Your task to perform on an android device: delete browsing data in the chrome app Image 0: 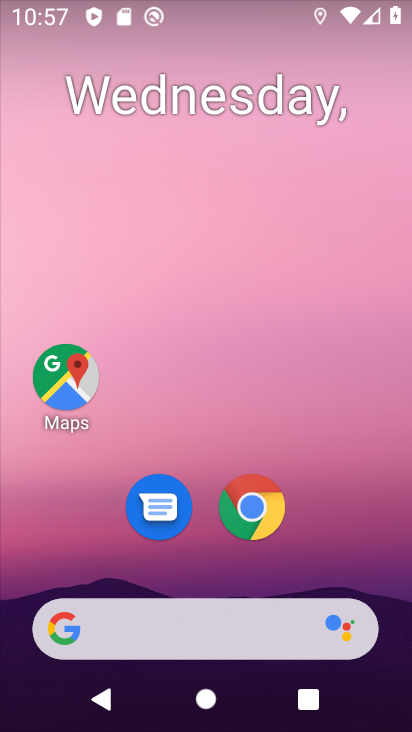
Step 0: drag from (344, 536) to (359, 159)
Your task to perform on an android device: delete browsing data in the chrome app Image 1: 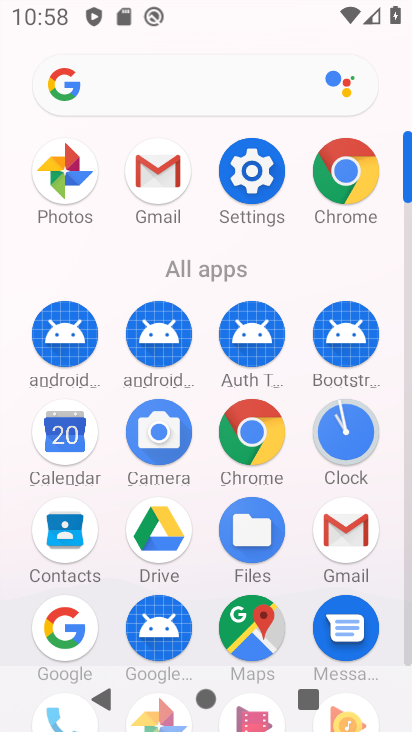
Step 1: click (249, 422)
Your task to perform on an android device: delete browsing data in the chrome app Image 2: 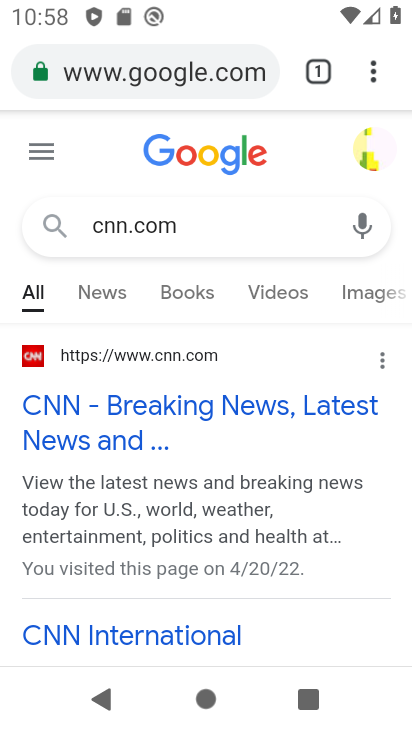
Step 2: click (377, 72)
Your task to perform on an android device: delete browsing data in the chrome app Image 3: 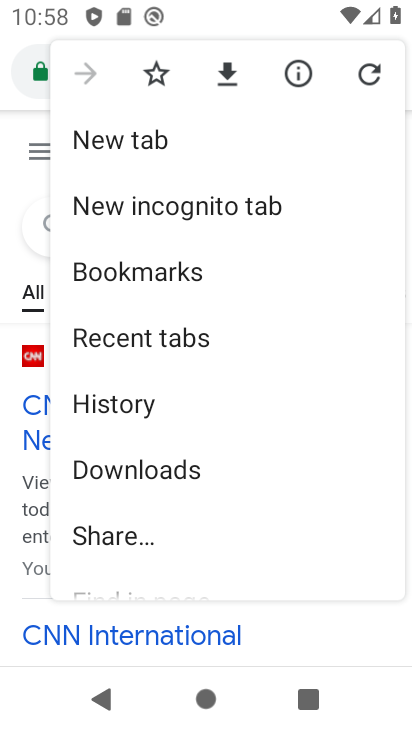
Step 3: drag from (356, 457) to (381, 297)
Your task to perform on an android device: delete browsing data in the chrome app Image 4: 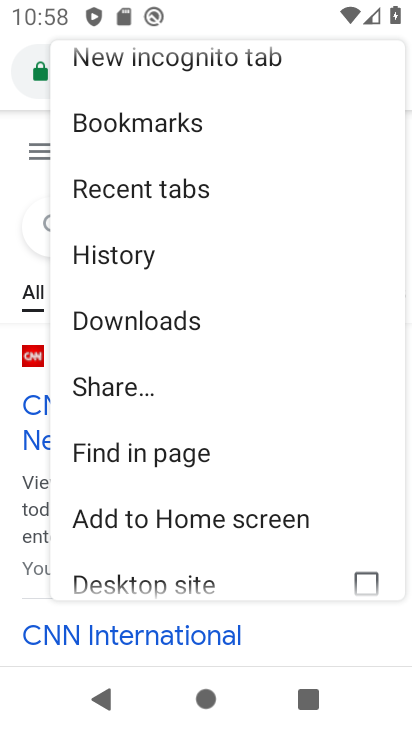
Step 4: drag from (302, 444) to (305, 304)
Your task to perform on an android device: delete browsing data in the chrome app Image 5: 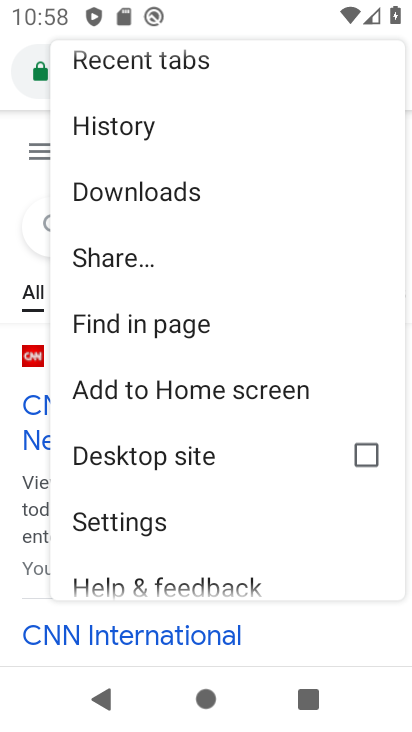
Step 5: click (159, 524)
Your task to perform on an android device: delete browsing data in the chrome app Image 6: 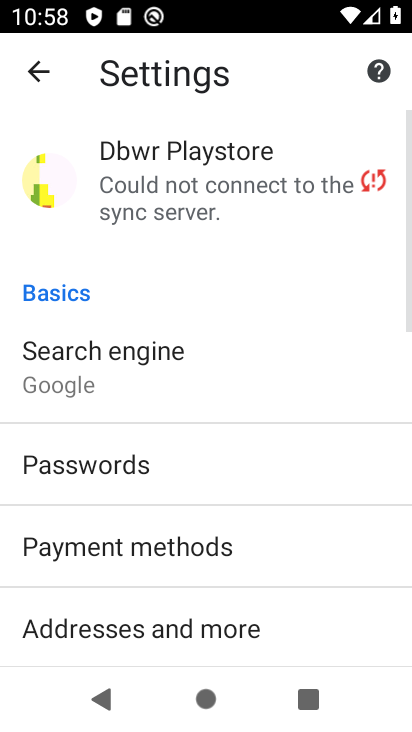
Step 6: drag from (287, 558) to (295, 416)
Your task to perform on an android device: delete browsing data in the chrome app Image 7: 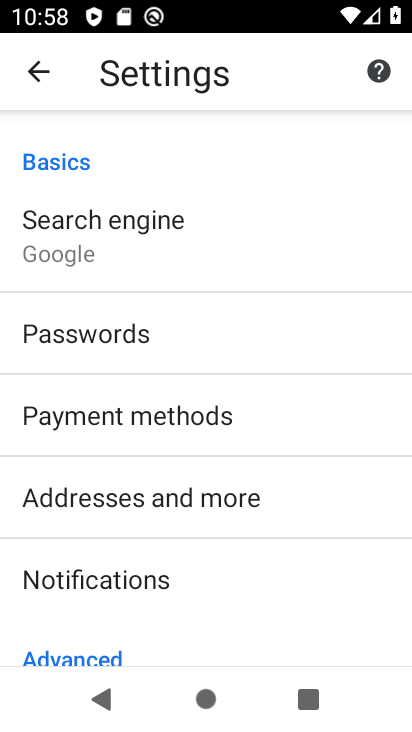
Step 7: drag from (339, 530) to (369, 345)
Your task to perform on an android device: delete browsing data in the chrome app Image 8: 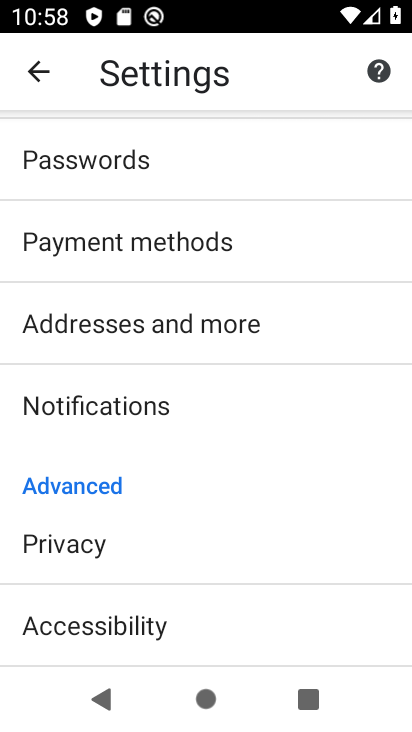
Step 8: drag from (294, 489) to (292, 326)
Your task to perform on an android device: delete browsing data in the chrome app Image 9: 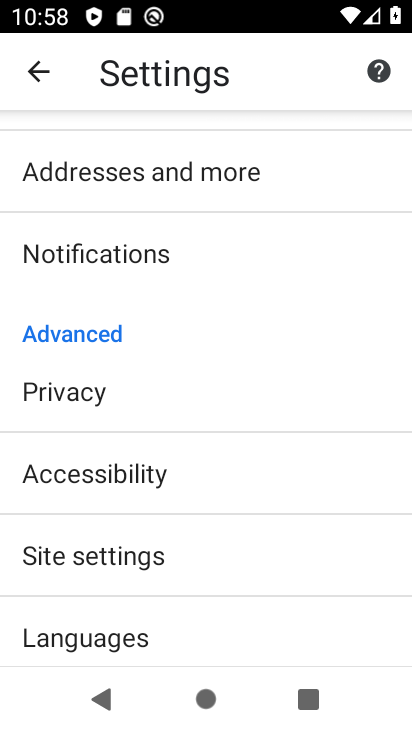
Step 9: drag from (311, 582) to (334, 416)
Your task to perform on an android device: delete browsing data in the chrome app Image 10: 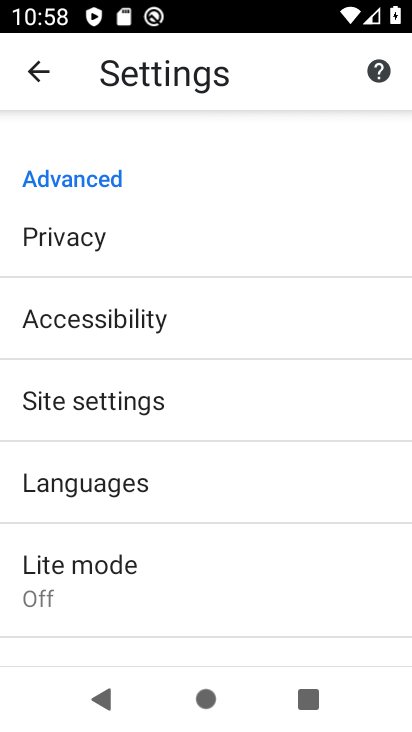
Step 10: click (112, 232)
Your task to perform on an android device: delete browsing data in the chrome app Image 11: 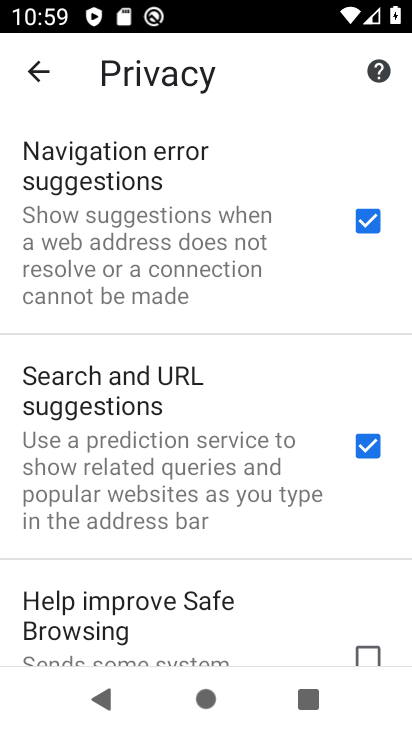
Step 11: drag from (265, 546) to (272, 327)
Your task to perform on an android device: delete browsing data in the chrome app Image 12: 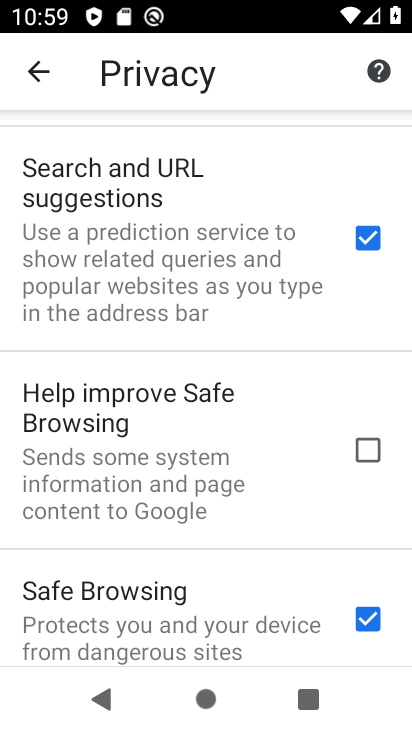
Step 12: drag from (307, 560) to (299, 367)
Your task to perform on an android device: delete browsing data in the chrome app Image 13: 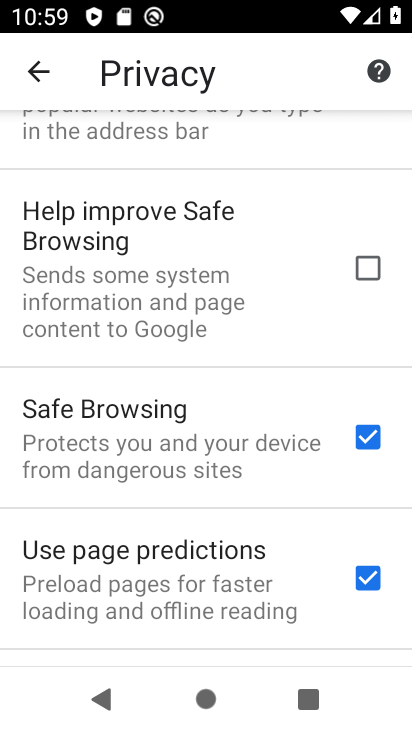
Step 13: drag from (304, 584) to (281, 398)
Your task to perform on an android device: delete browsing data in the chrome app Image 14: 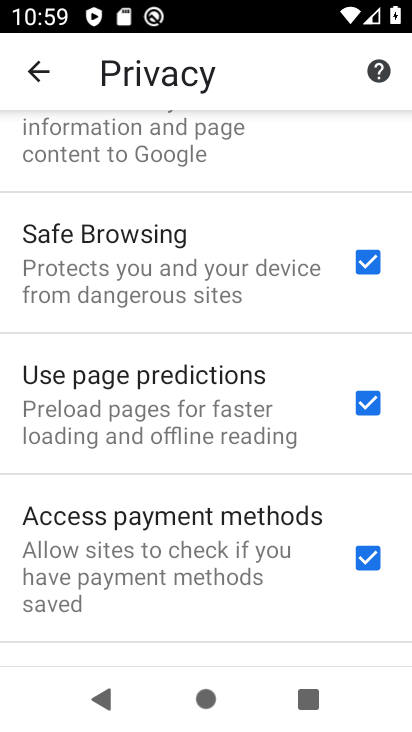
Step 14: drag from (291, 578) to (307, 388)
Your task to perform on an android device: delete browsing data in the chrome app Image 15: 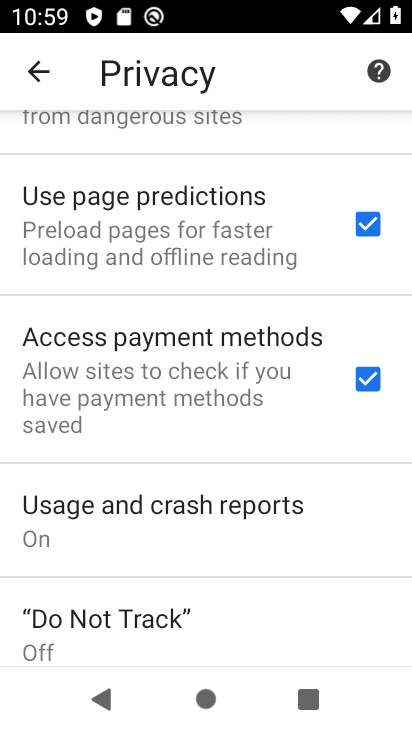
Step 15: drag from (276, 602) to (293, 405)
Your task to perform on an android device: delete browsing data in the chrome app Image 16: 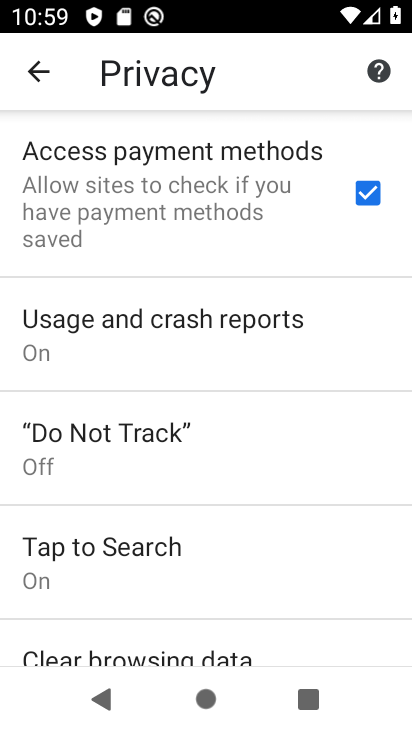
Step 16: drag from (267, 574) to (286, 369)
Your task to perform on an android device: delete browsing data in the chrome app Image 17: 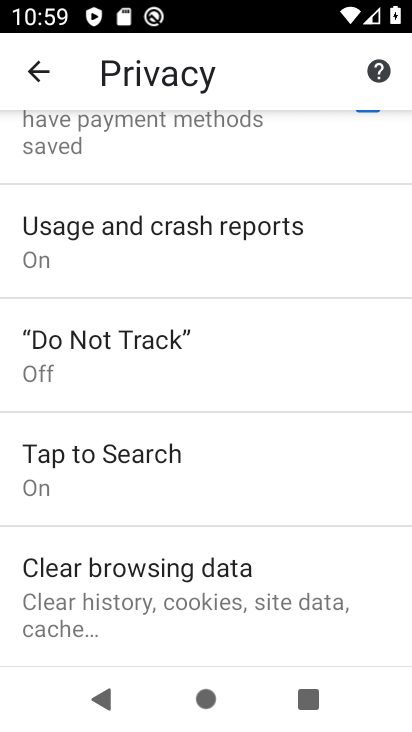
Step 17: click (209, 582)
Your task to perform on an android device: delete browsing data in the chrome app Image 18: 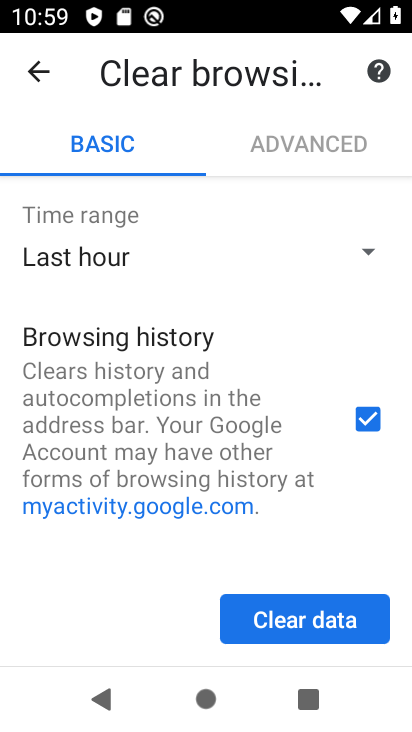
Step 18: click (328, 617)
Your task to perform on an android device: delete browsing data in the chrome app Image 19: 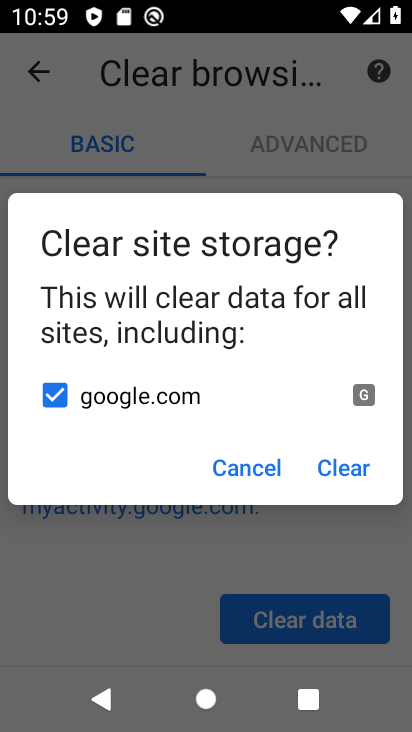
Step 19: click (335, 468)
Your task to perform on an android device: delete browsing data in the chrome app Image 20: 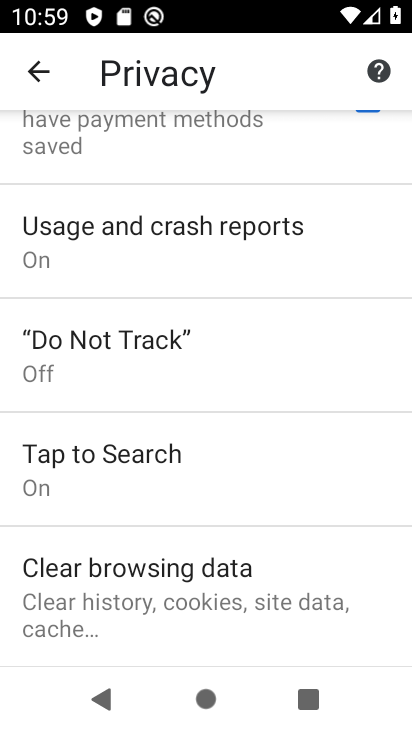
Step 20: task complete